Your task to perform on an android device: turn on priority inbox in the gmail app Image 0: 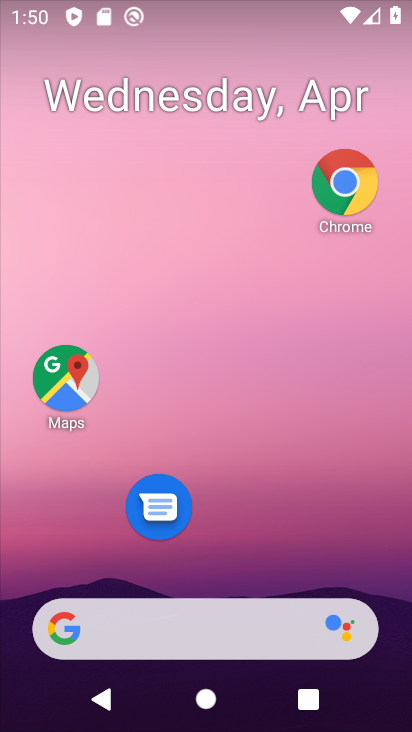
Step 0: drag from (251, 706) to (237, 199)
Your task to perform on an android device: turn on priority inbox in the gmail app Image 1: 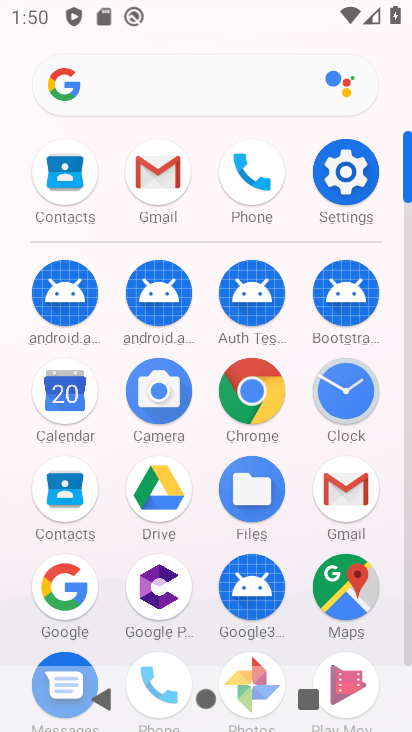
Step 1: click (328, 476)
Your task to perform on an android device: turn on priority inbox in the gmail app Image 2: 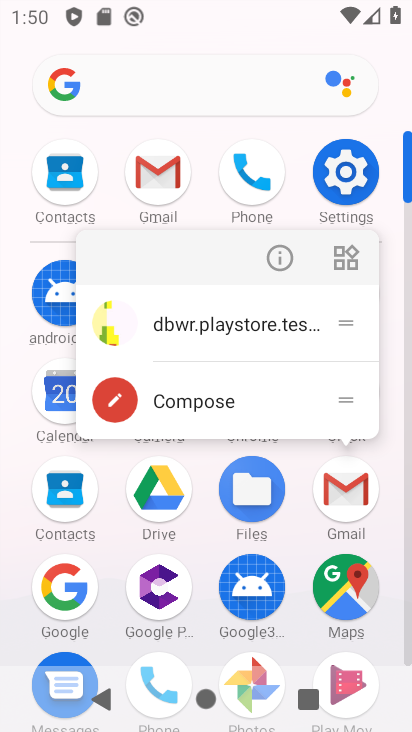
Step 2: click (339, 492)
Your task to perform on an android device: turn on priority inbox in the gmail app Image 3: 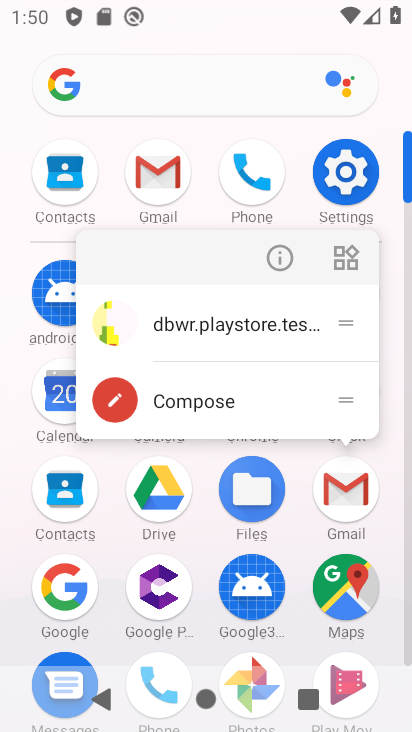
Step 3: click (339, 491)
Your task to perform on an android device: turn on priority inbox in the gmail app Image 4: 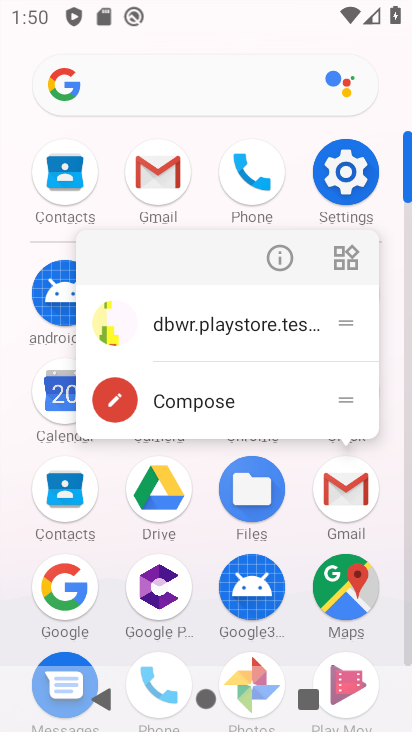
Step 4: click (339, 491)
Your task to perform on an android device: turn on priority inbox in the gmail app Image 5: 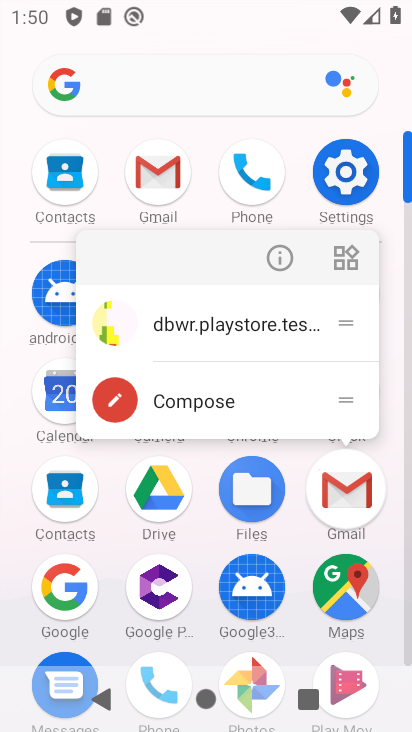
Step 5: click (339, 491)
Your task to perform on an android device: turn on priority inbox in the gmail app Image 6: 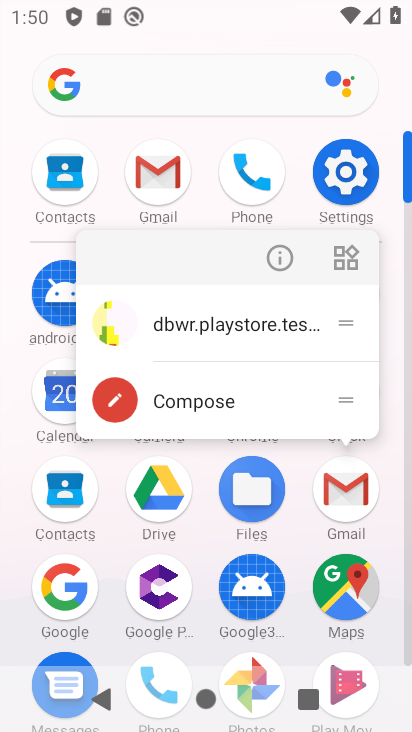
Step 6: click (339, 491)
Your task to perform on an android device: turn on priority inbox in the gmail app Image 7: 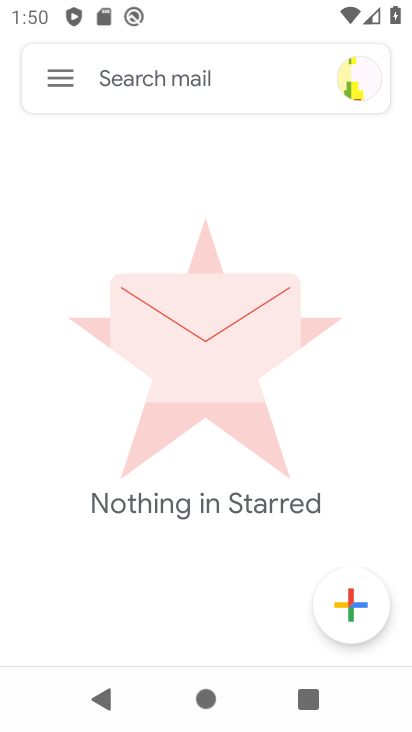
Step 7: click (339, 491)
Your task to perform on an android device: turn on priority inbox in the gmail app Image 8: 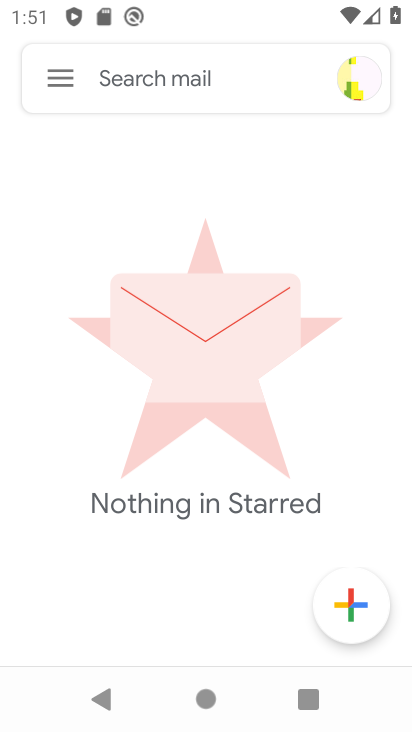
Step 8: click (71, 77)
Your task to perform on an android device: turn on priority inbox in the gmail app Image 9: 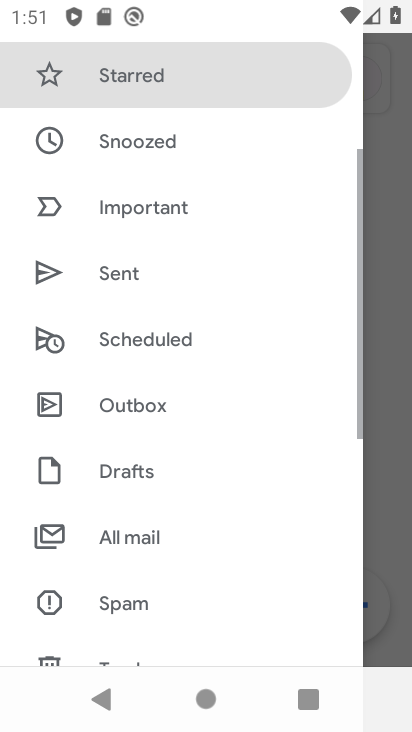
Step 9: drag from (221, 624) to (166, 132)
Your task to perform on an android device: turn on priority inbox in the gmail app Image 10: 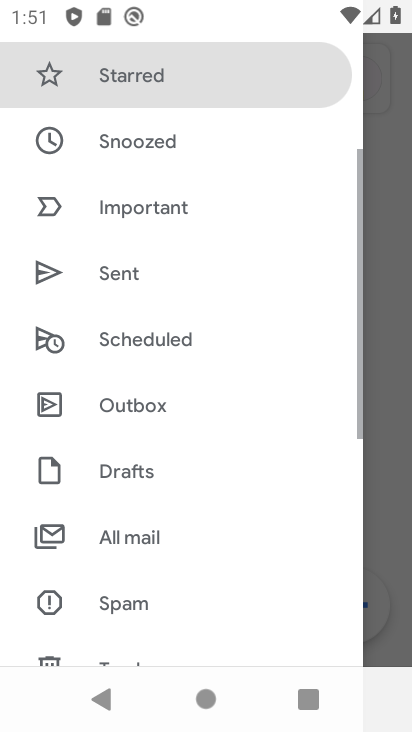
Step 10: drag from (209, 563) to (202, 25)
Your task to perform on an android device: turn on priority inbox in the gmail app Image 11: 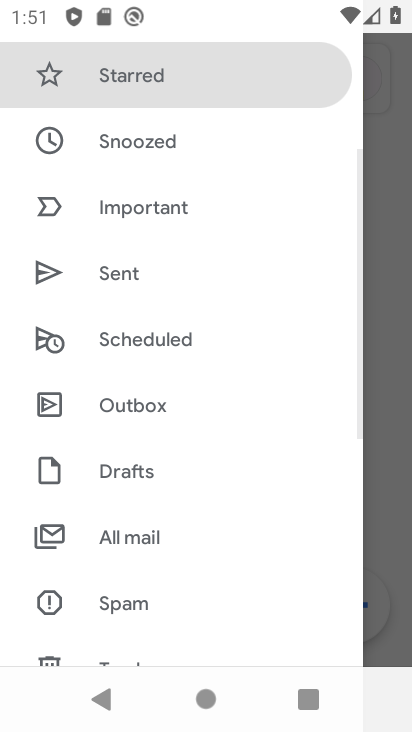
Step 11: drag from (243, 614) to (244, 44)
Your task to perform on an android device: turn on priority inbox in the gmail app Image 12: 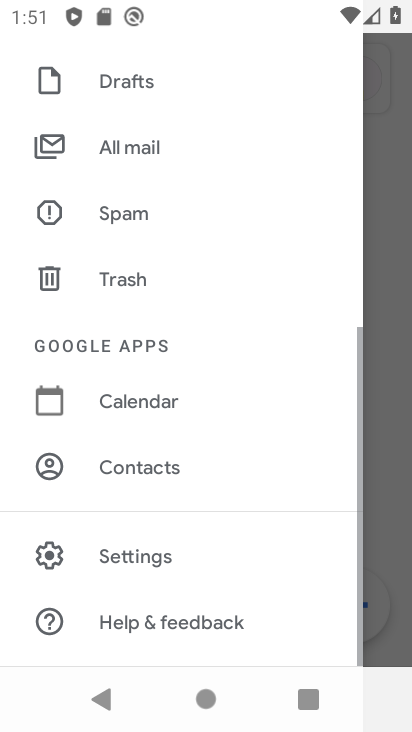
Step 12: click (175, 563)
Your task to perform on an android device: turn on priority inbox in the gmail app Image 13: 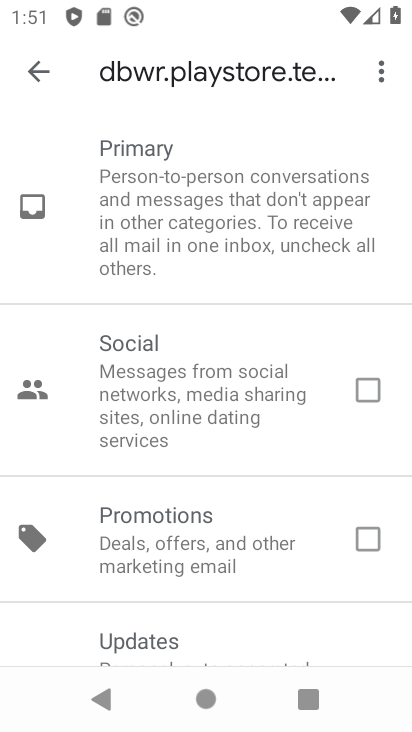
Step 13: press back button
Your task to perform on an android device: turn on priority inbox in the gmail app Image 14: 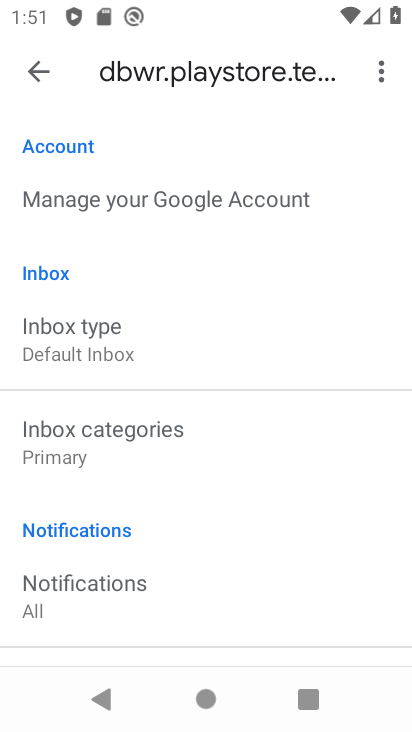
Step 14: click (121, 337)
Your task to perform on an android device: turn on priority inbox in the gmail app Image 15: 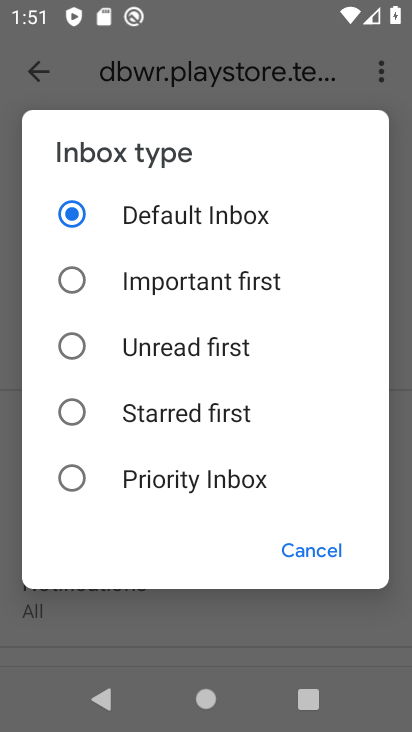
Step 15: click (218, 468)
Your task to perform on an android device: turn on priority inbox in the gmail app Image 16: 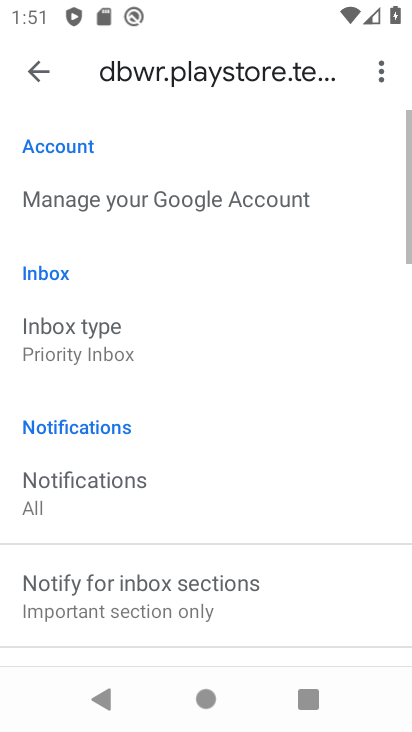
Step 16: task complete